Your task to perform on an android device: check data usage Image 0: 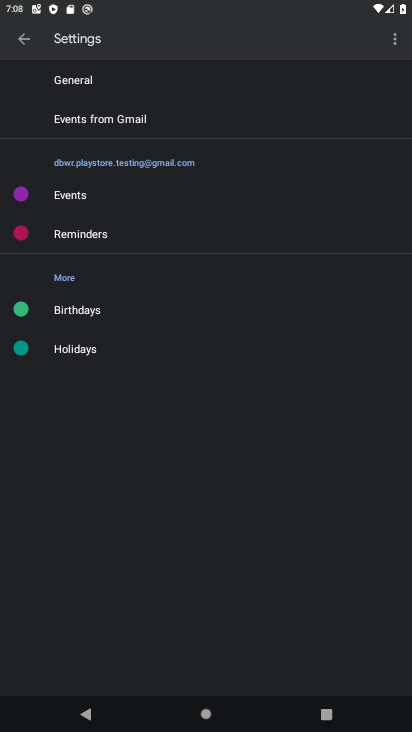
Step 0: press home button
Your task to perform on an android device: check data usage Image 1: 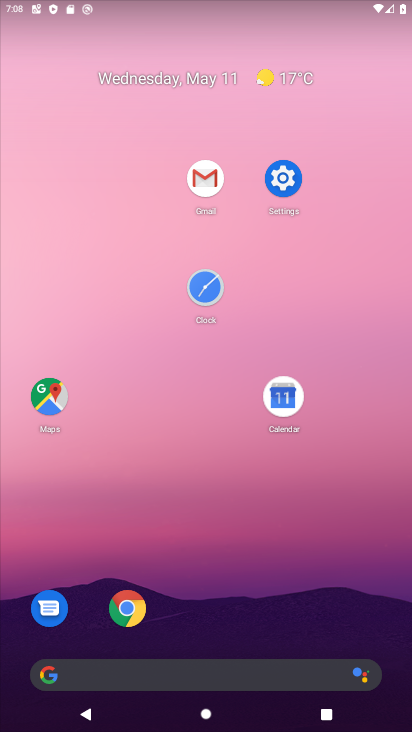
Step 1: click (291, 203)
Your task to perform on an android device: check data usage Image 2: 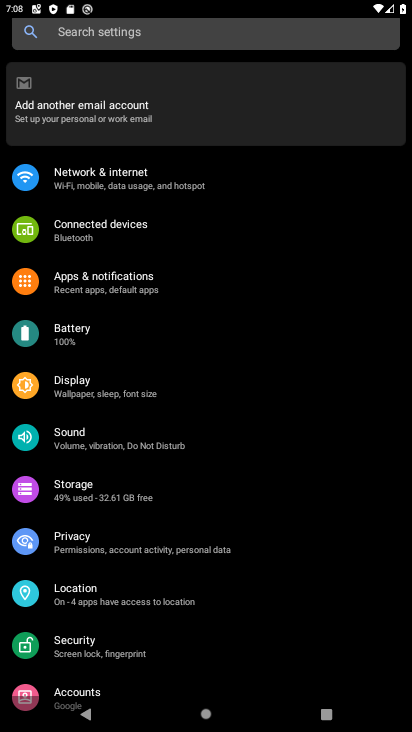
Step 2: click (164, 192)
Your task to perform on an android device: check data usage Image 3: 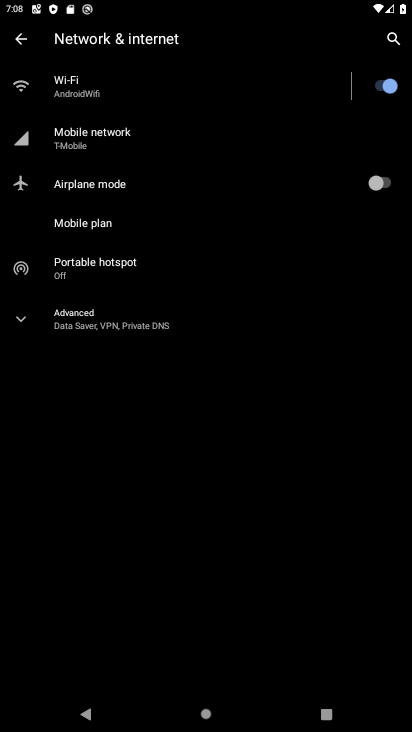
Step 3: click (180, 150)
Your task to perform on an android device: check data usage Image 4: 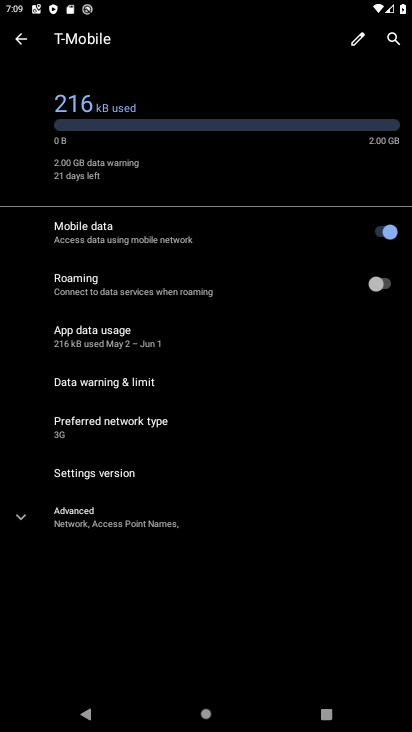
Step 4: click (158, 383)
Your task to perform on an android device: check data usage Image 5: 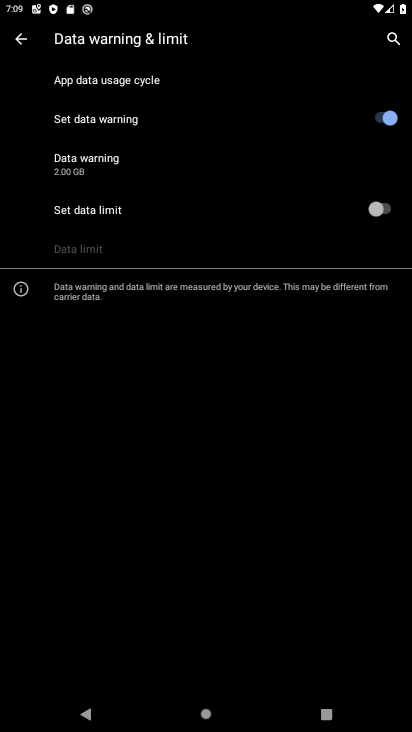
Step 5: click (211, 81)
Your task to perform on an android device: check data usage Image 6: 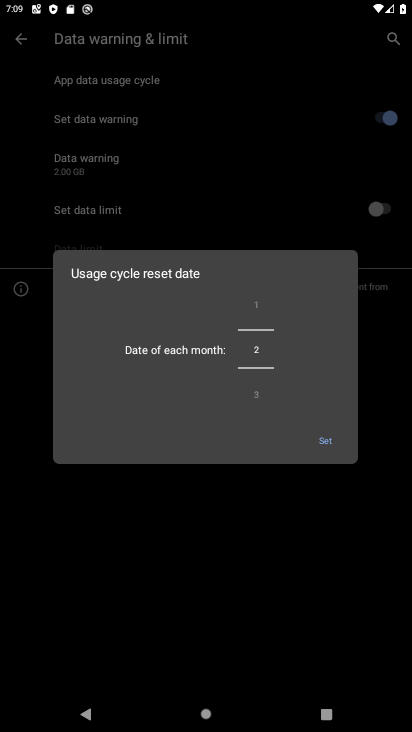
Step 6: task complete